Your task to perform on an android device: Open internet settings Image 0: 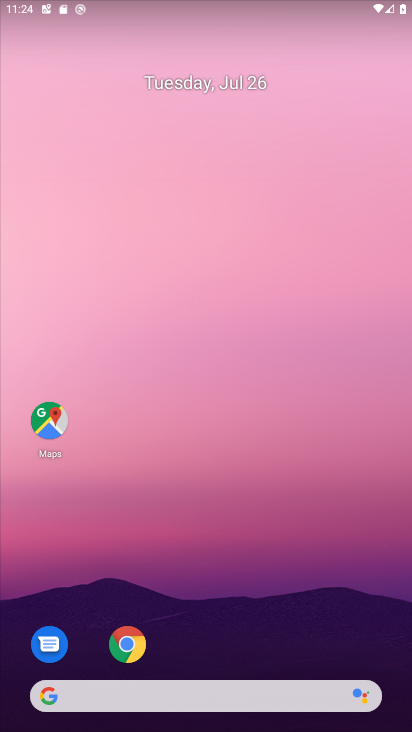
Step 0: drag from (398, 718) to (284, 73)
Your task to perform on an android device: Open internet settings Image 1: 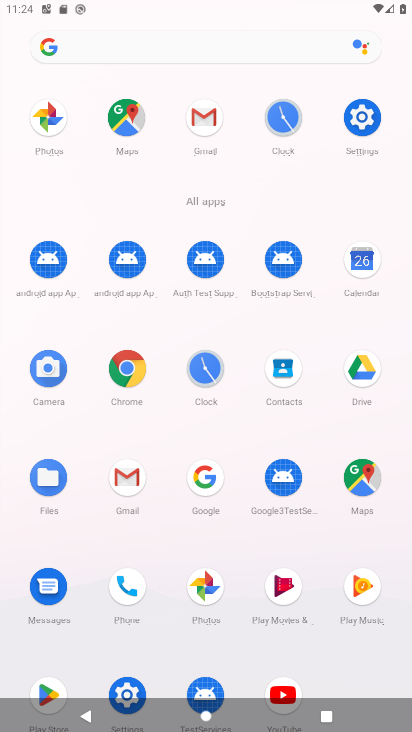
Step 1: click (360, 116)
Your task to perform on an android device: Open internet settings Image 2: 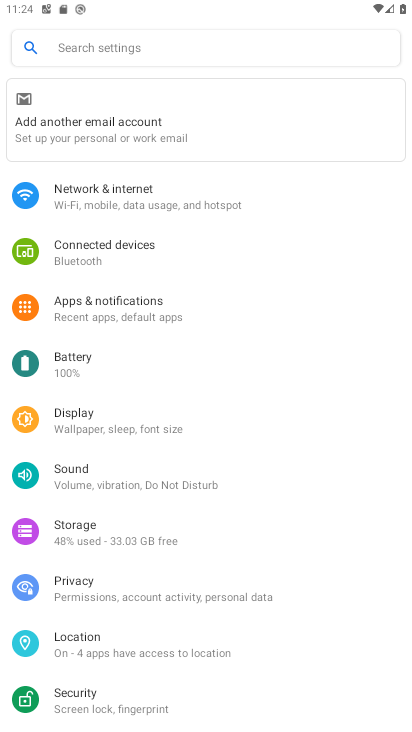
Step 2: click (84, 199)
Your task to perform on an android device: Open internet settings Image 3: 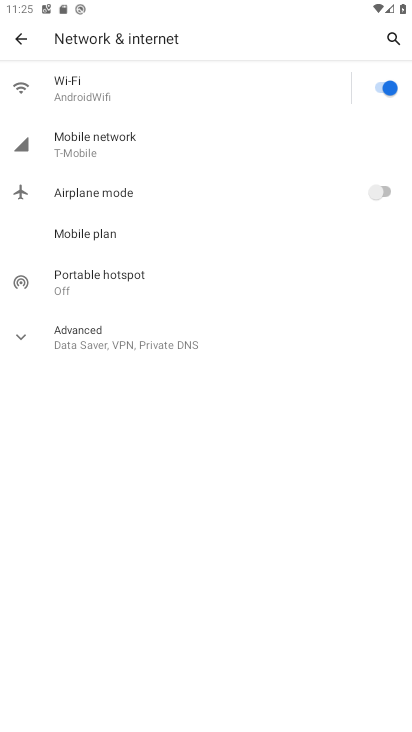
Step 3: click (20, 335)
Your task to perform on an android device: Open internet settings Image 4: 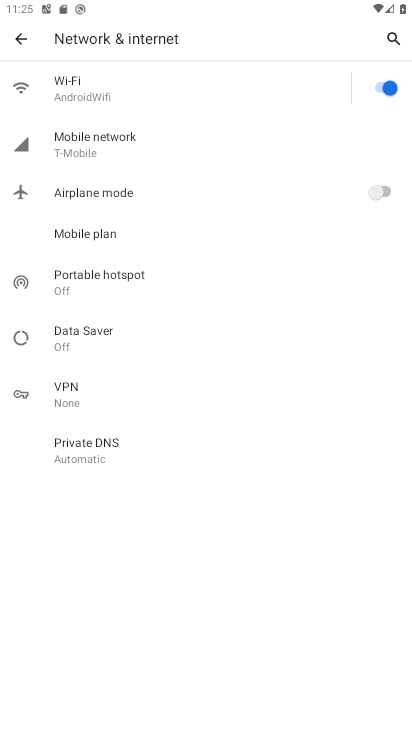
Step 4: task complete